Your task to perform on an android device: Clear all items from cart on target.com. Search for "razer blade" on target.com, select the first entry, add it to the cart, then select checkout. Image 0: 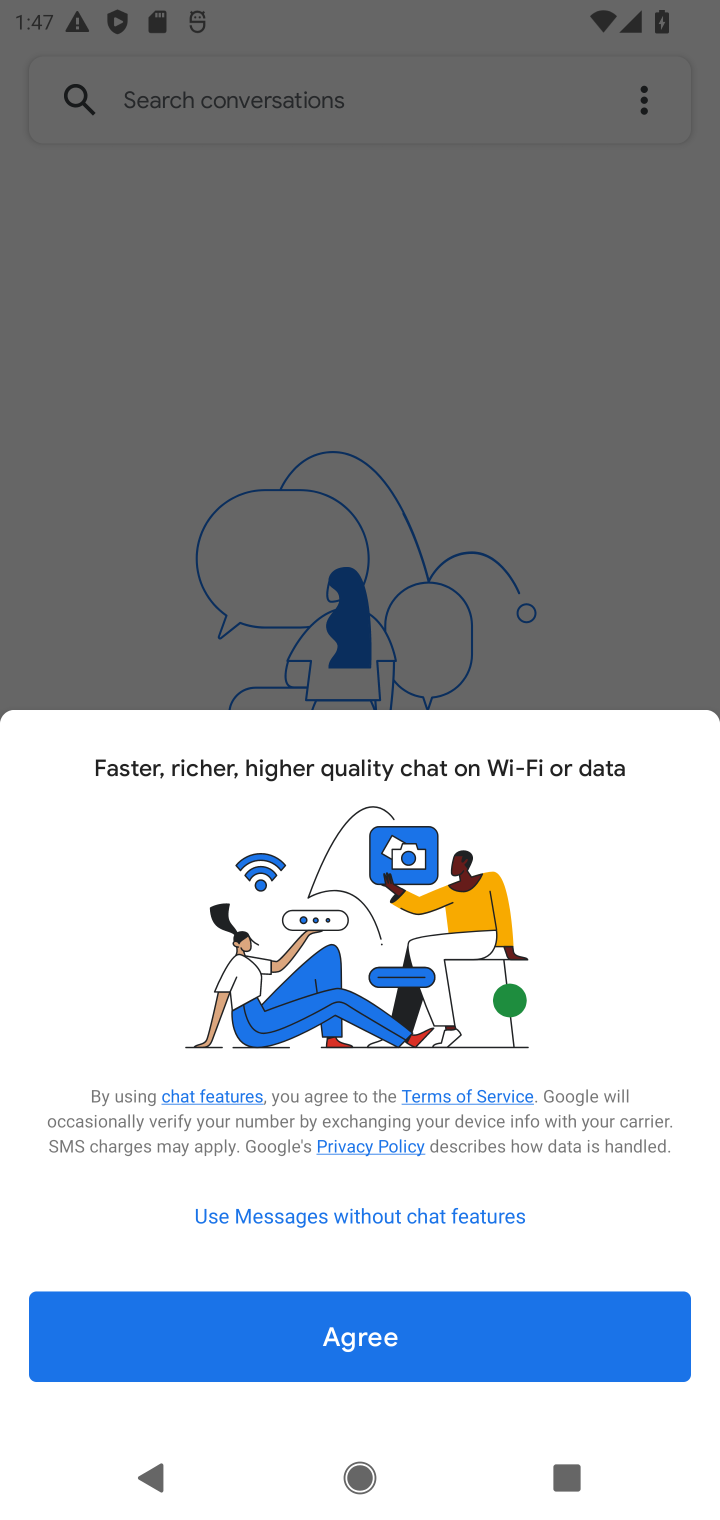
Step 0: press home button
Your task to perform on an android device: Clear all items from cart on target.com. Search for "razer blade" on target.com, select the first entry, add it to the cart, then select checkout. Image 1: 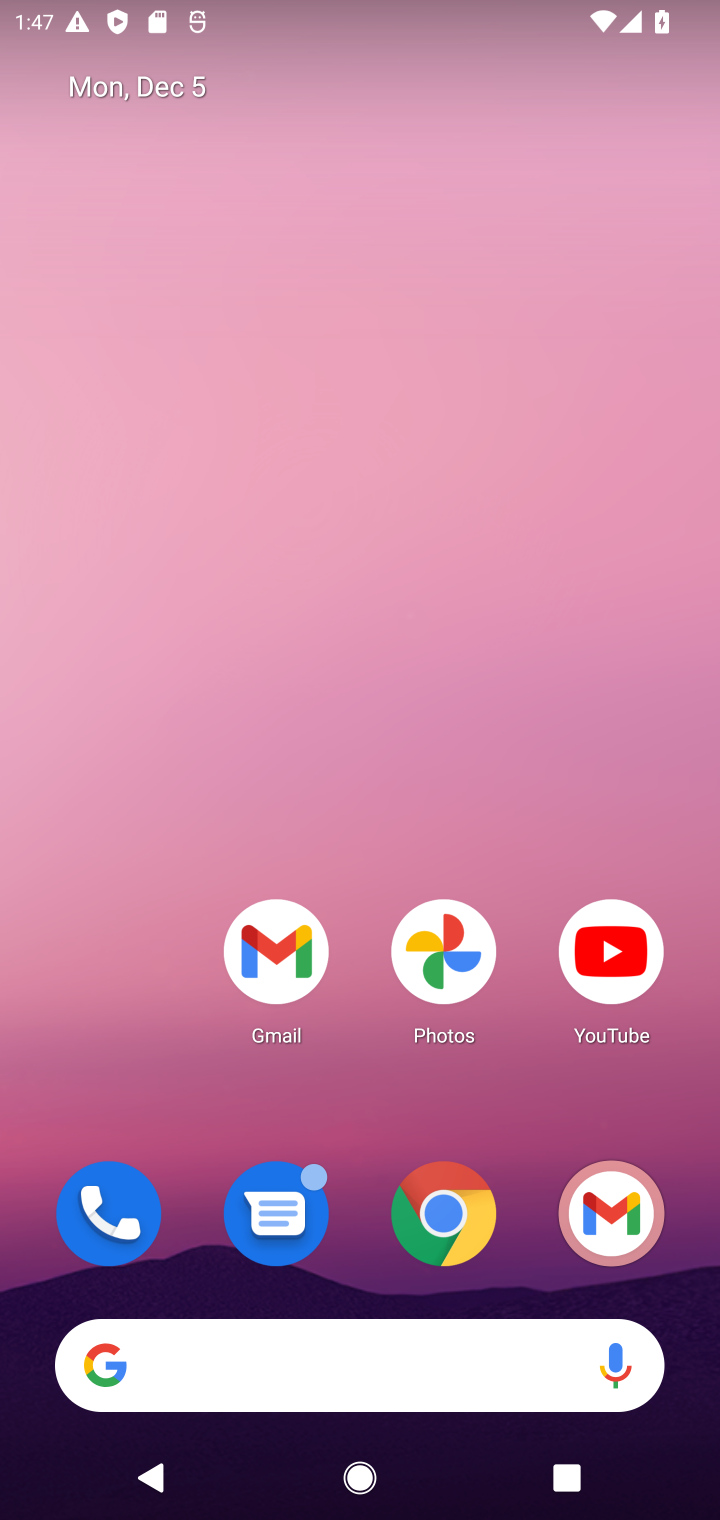
Step 1: click (454, 1184)
Your task to perform on an android device: Clear all items from cart on target.com. Search for "razer blade" on target.com, select the first entry, add it to the cart, then select checkout. Image 2: 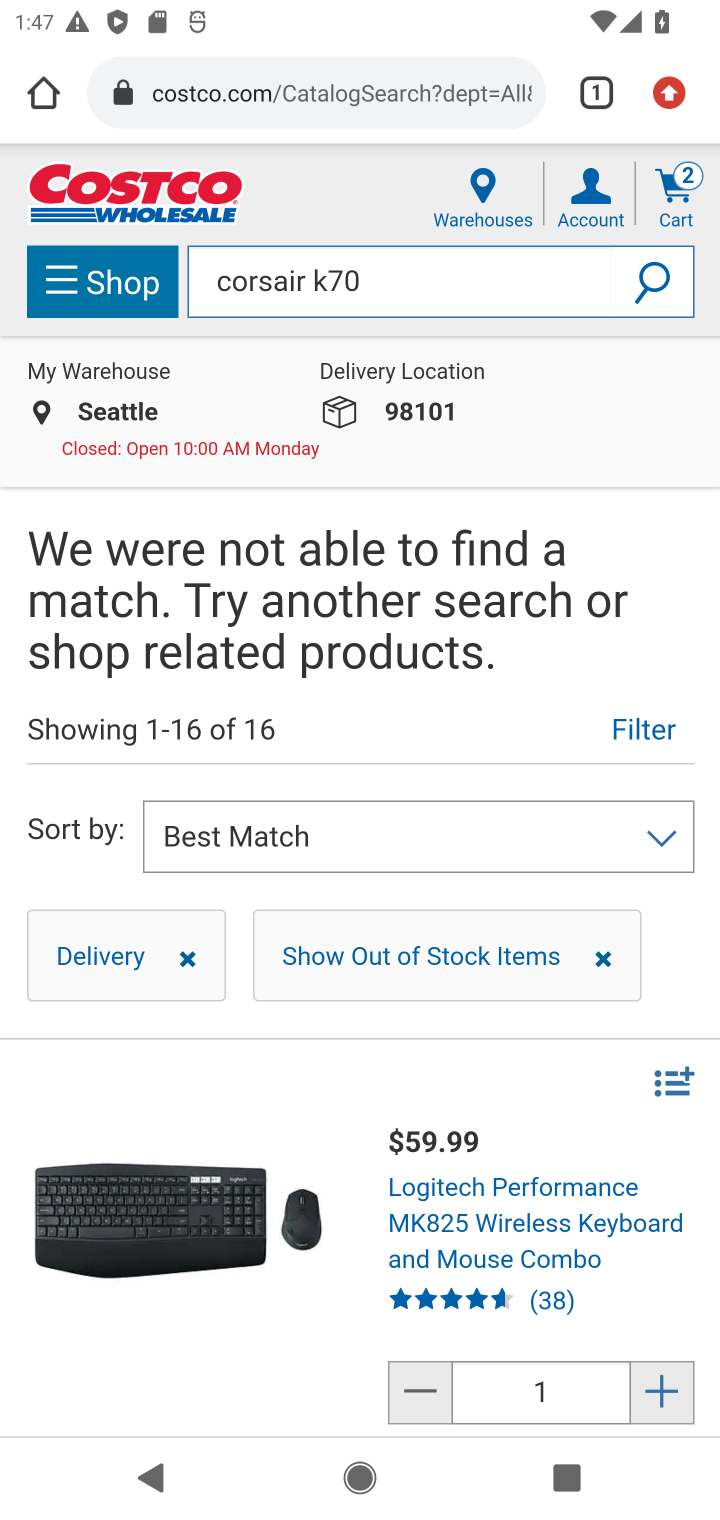
Step 2: click (274, 88)
Your task to perform on an android device: Clear all items from cart on target.com. Search for "razer blade" on target.com, select the first entry, add it to the cart, then select checkout. Image 3: 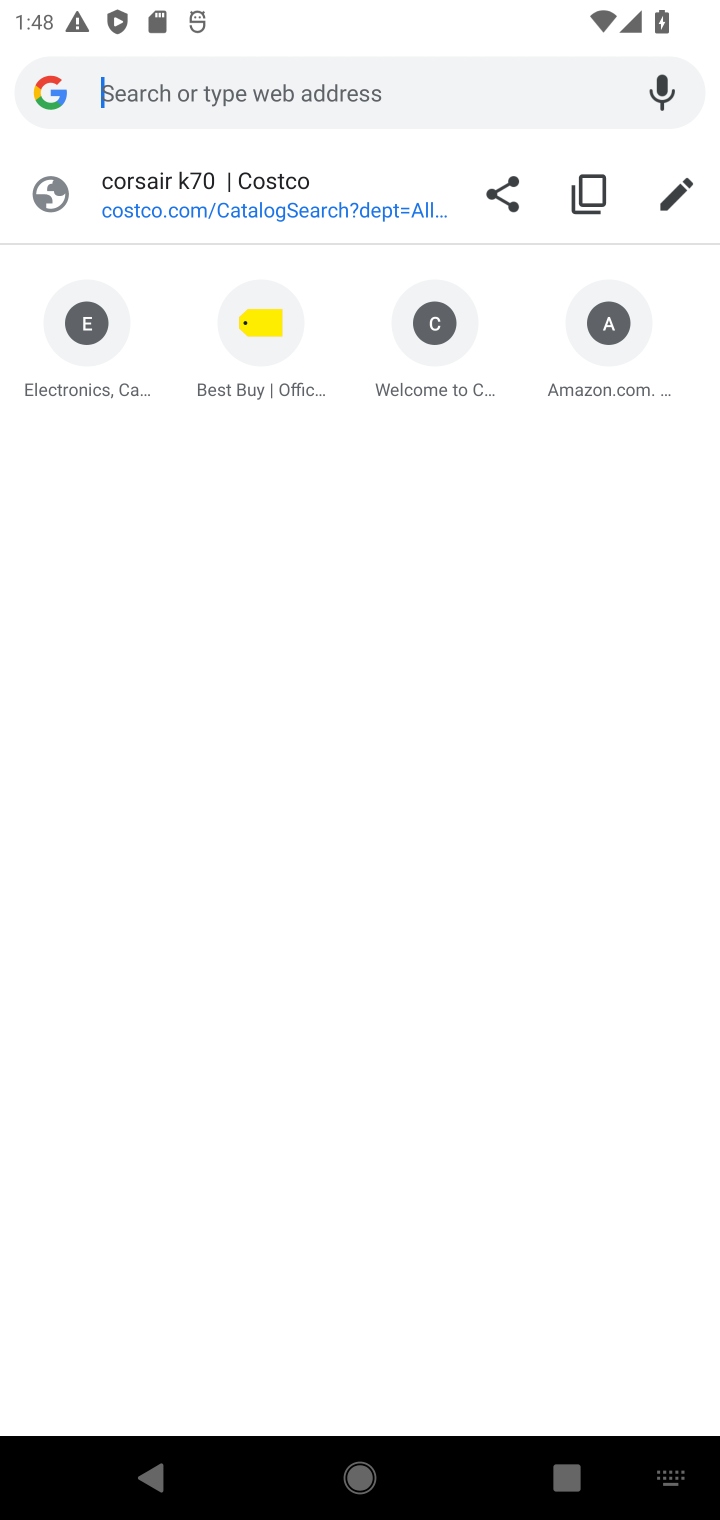
Step 3: type "target.com"
Your task to perform on an android device: Clear all items from cart on target.com. Search for "razer blade" on target.com, select the first entry, add it to the cart, then select checkout. Image 4: 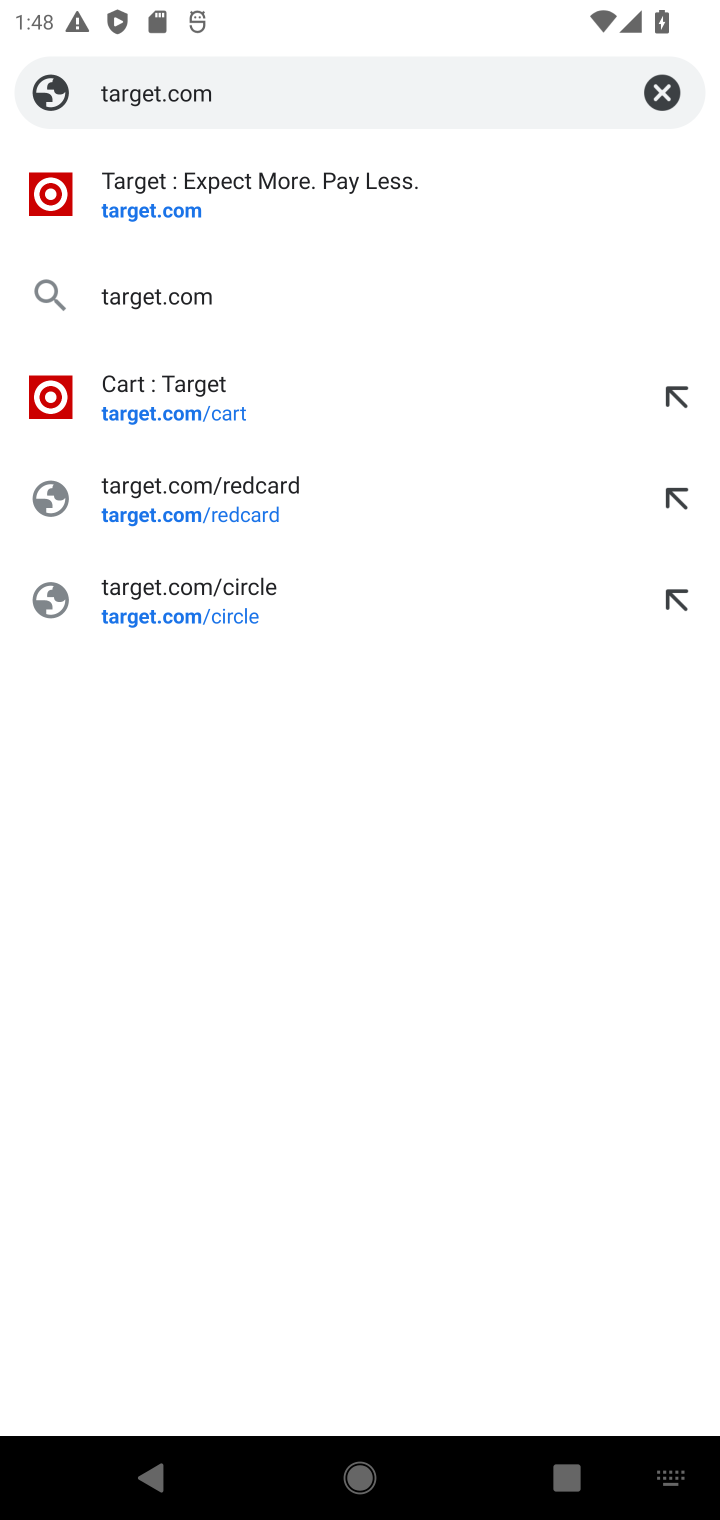
Step 4: click (162, 208)
Your task to perform on an android device: Clear all items from cart on target.com. Search for "razer blade" on target.com, select the first entry, add it to the cart, then select checkout. Image 5: 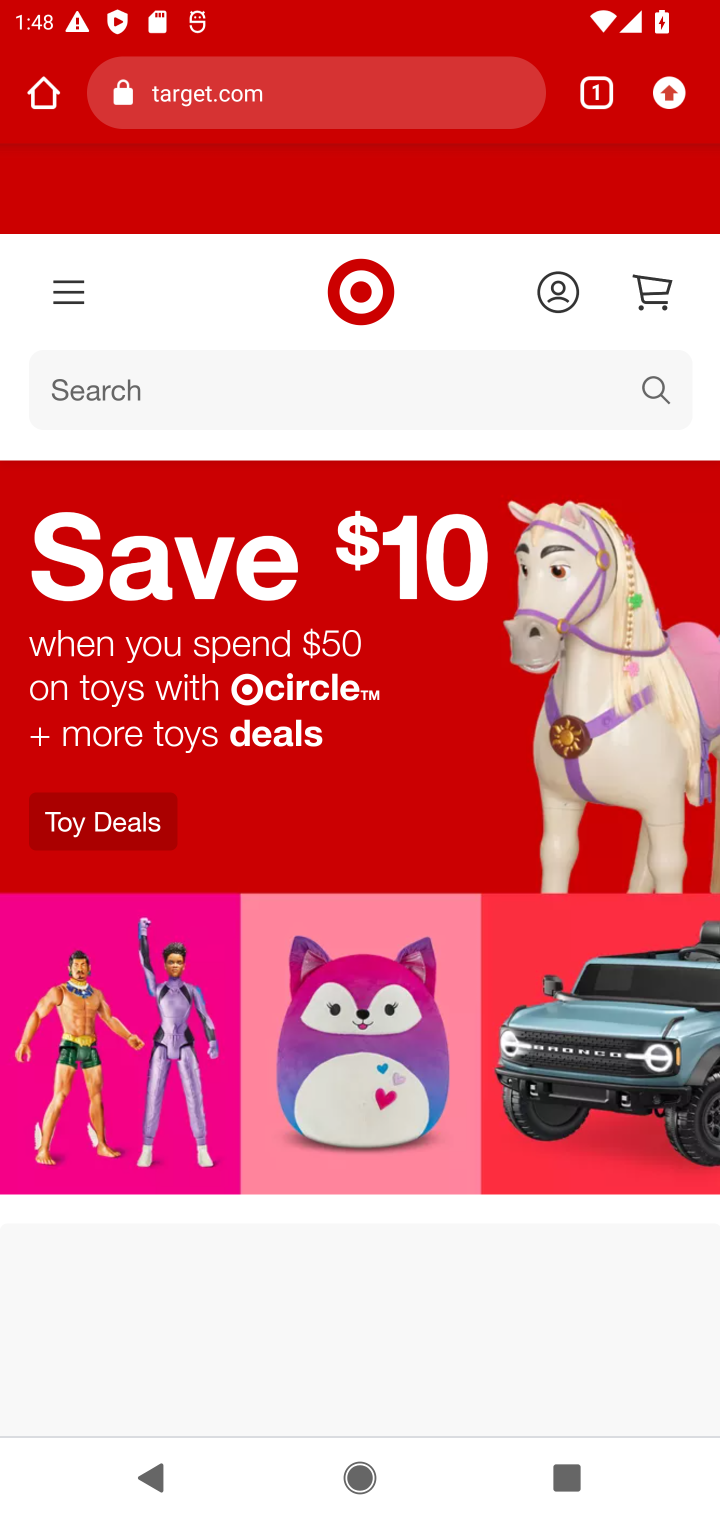
Step 5: click (653, 282)
Your task to perform on an android device: Clear all items from cart on target.com. Search for "razer blade" on target.com, select the first entry, add it to the cart, then select checkout. Image 6: 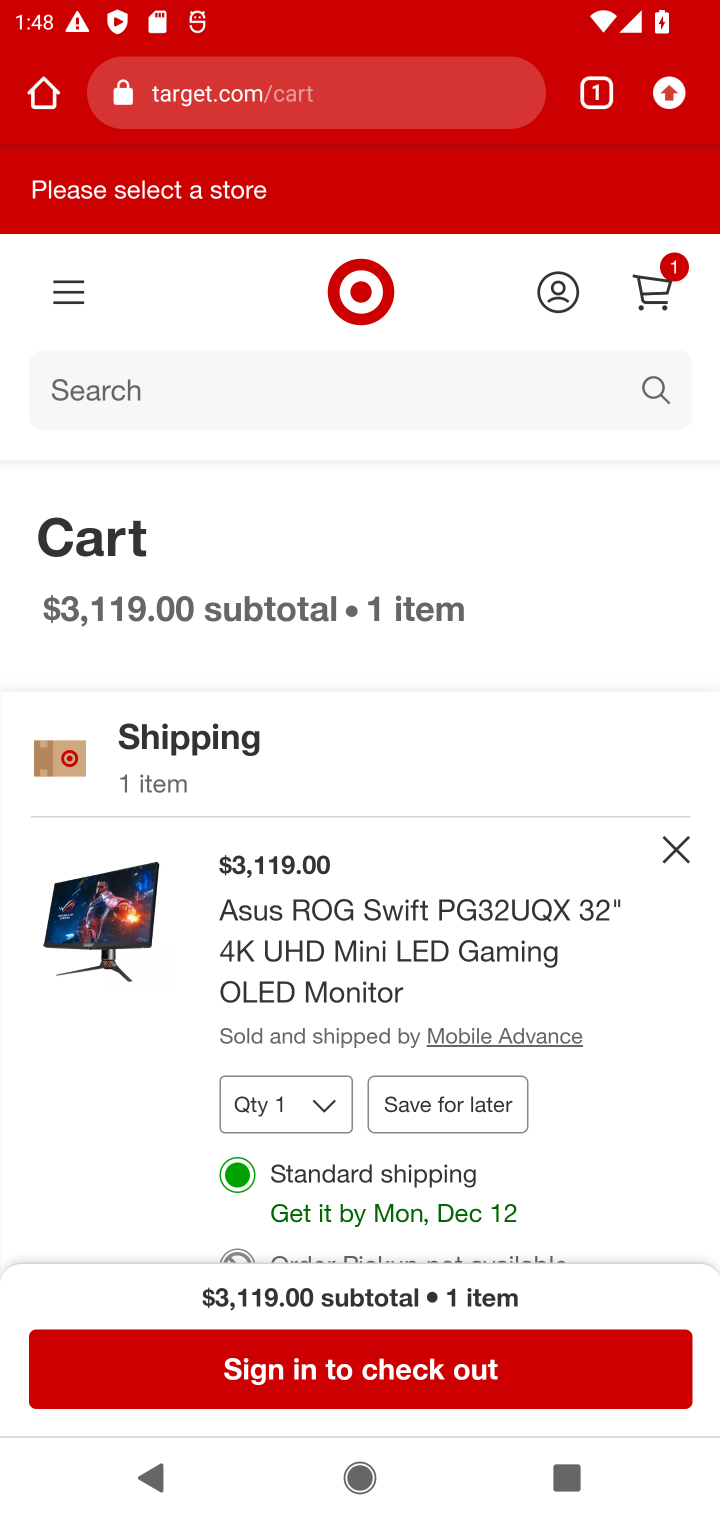
Step 6: click (676, 856)
Your task to perform on an android device: Clear all items from cart on target.com. Search for "razer blade" on target.com, select the first entry, add it to the cart, then select checkout. Image 7: 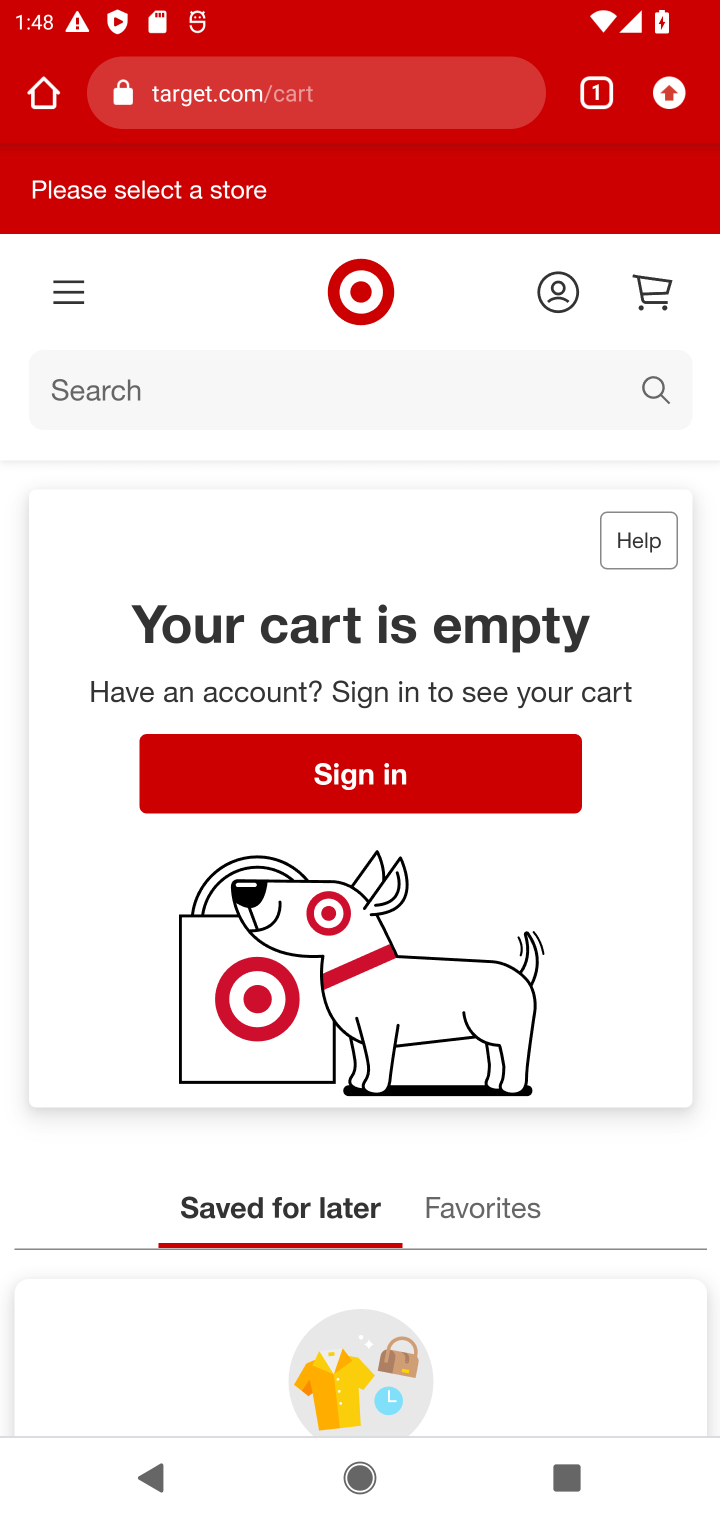
Step 7: click (656, 384)
Your task to perform on an android device: Clear all items from cart on target.com. Search for "razer blade" on target.com, select the first entry, add it to the cart, then select checkout. Image 8: 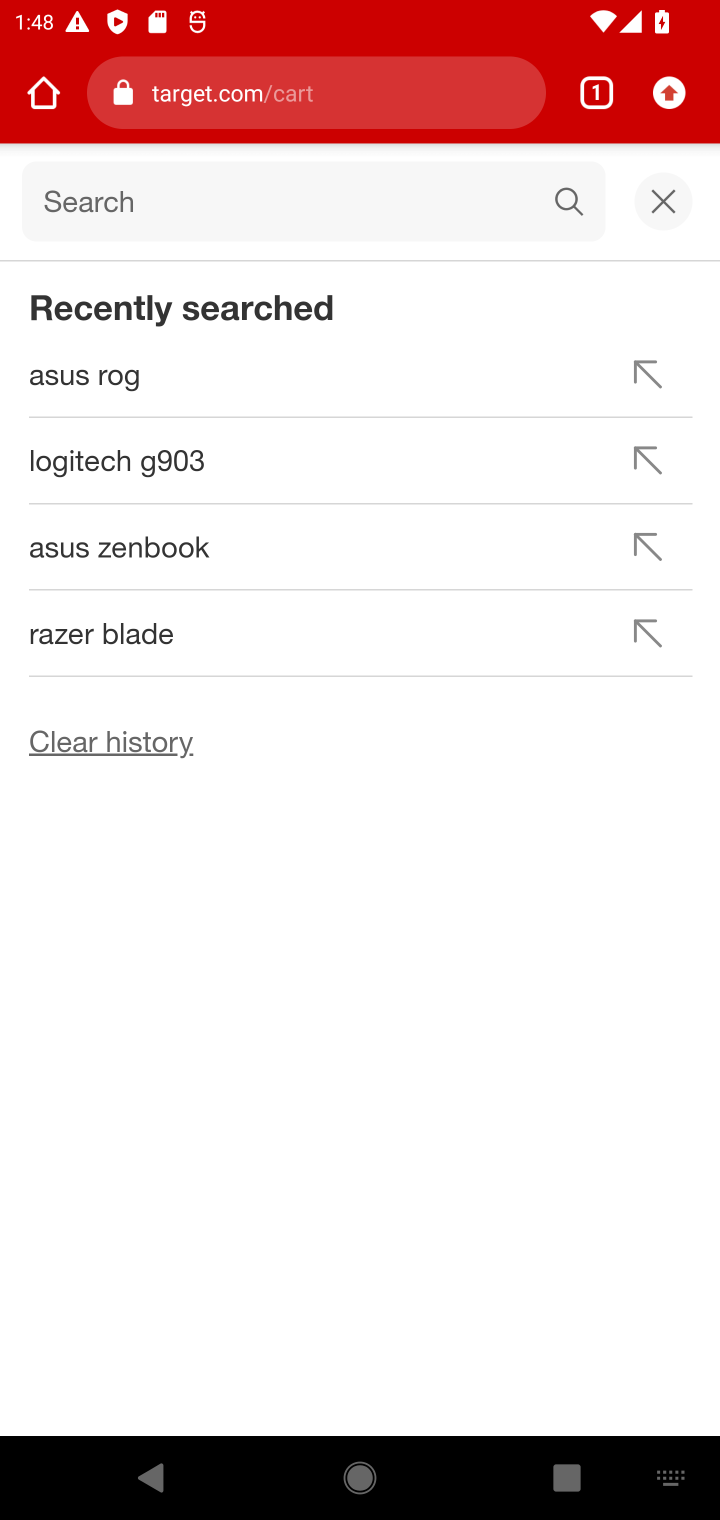
Step 8: type "razer blade"
Your task to perform on an android device: Clear all items from cart on target.com. Search for "razer blade" on target.com, select the first entry, add it to the cart, then select checkout. Image 9: 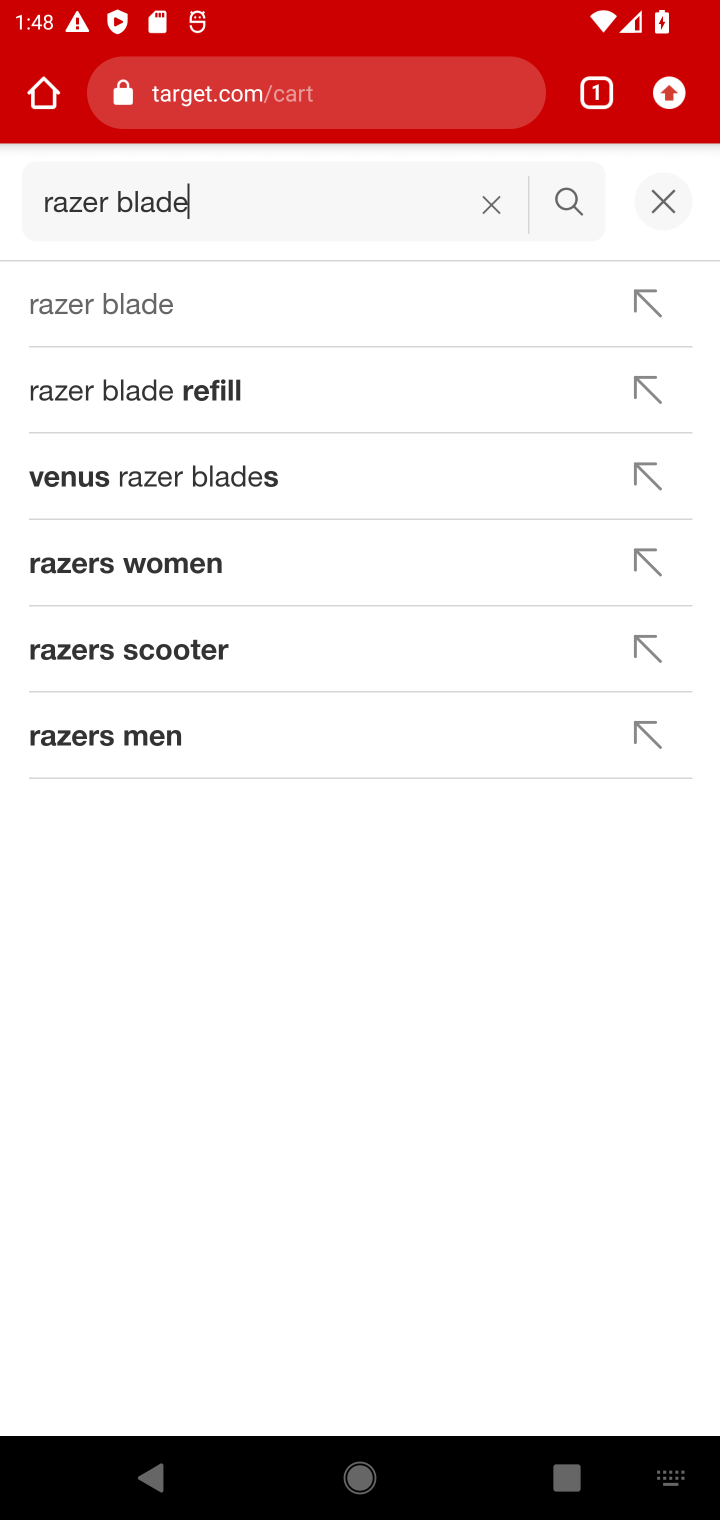
Step 9: click (133, 291)
Your task to perform on an android device: Clear all items from cart on target.com. Search for "razer blade" on target.com, select the first entry, add it to the cart, then select checkout. Image 10: 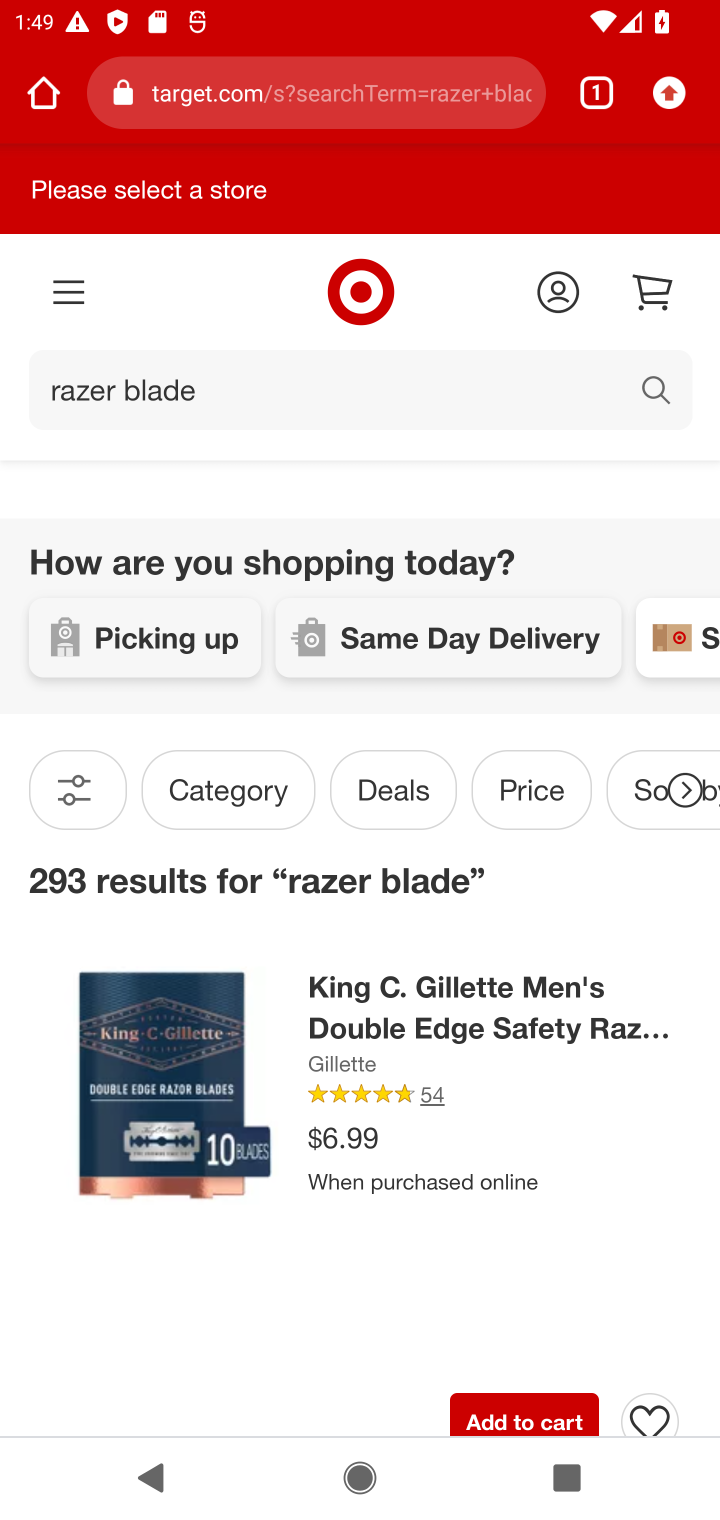
Step 10: task complete